Your task to perform on an android device: Open sound settings Image 0: 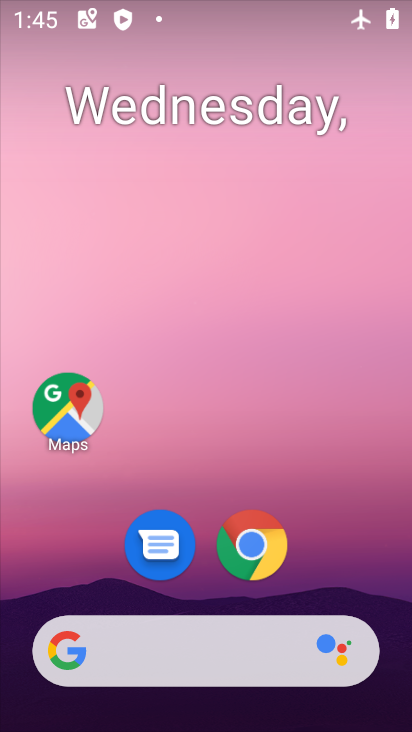
Step 0: drag from (323, 456) to (291, 111)
Your task to perform on an android device: Open sound settings Image 1: 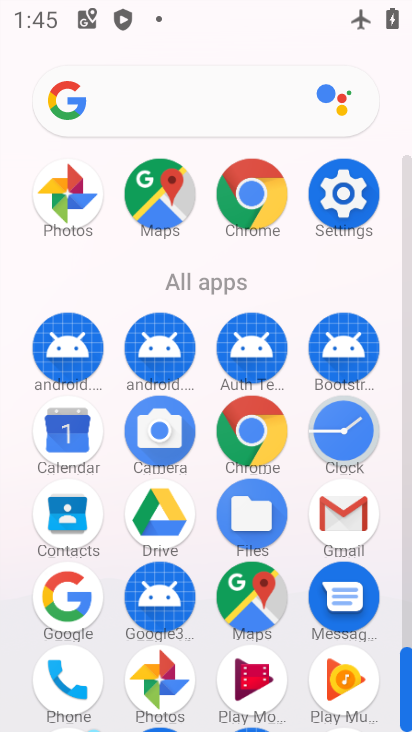
Step 1: click (354, 185)
Your task to perform on an android device: Open sound settings Image 2: 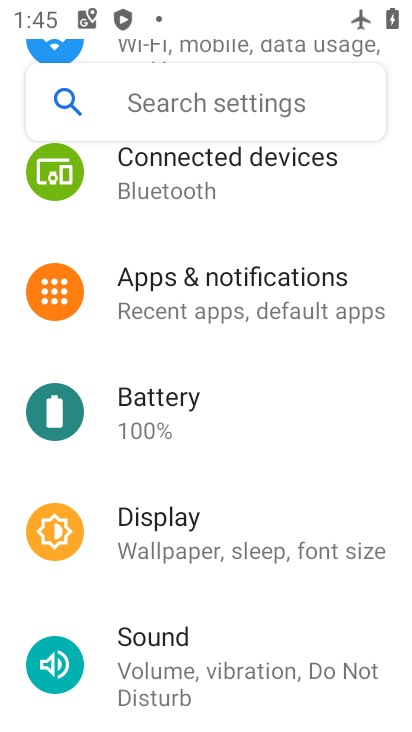
Step 2: click (169, 629)
Your task to perform on an android device: Open sound settings Image 3: 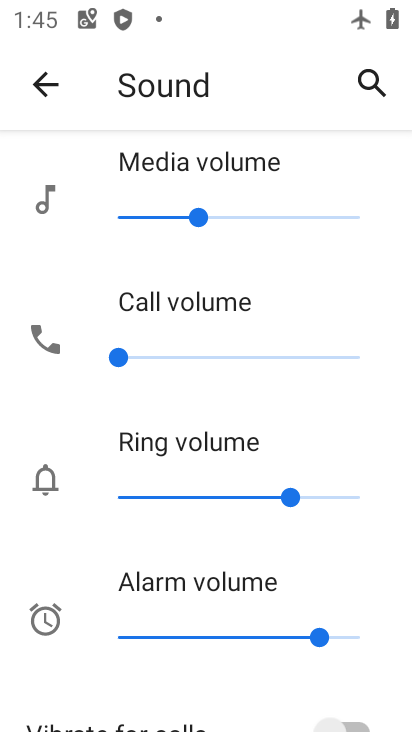
Step 3: task complete